Your task to perform on an android device: Clear the cart on ebay.com. Search for "dell xps" on ebay.com, select the first entry, add it to the cart, then select checkout. Image 0: 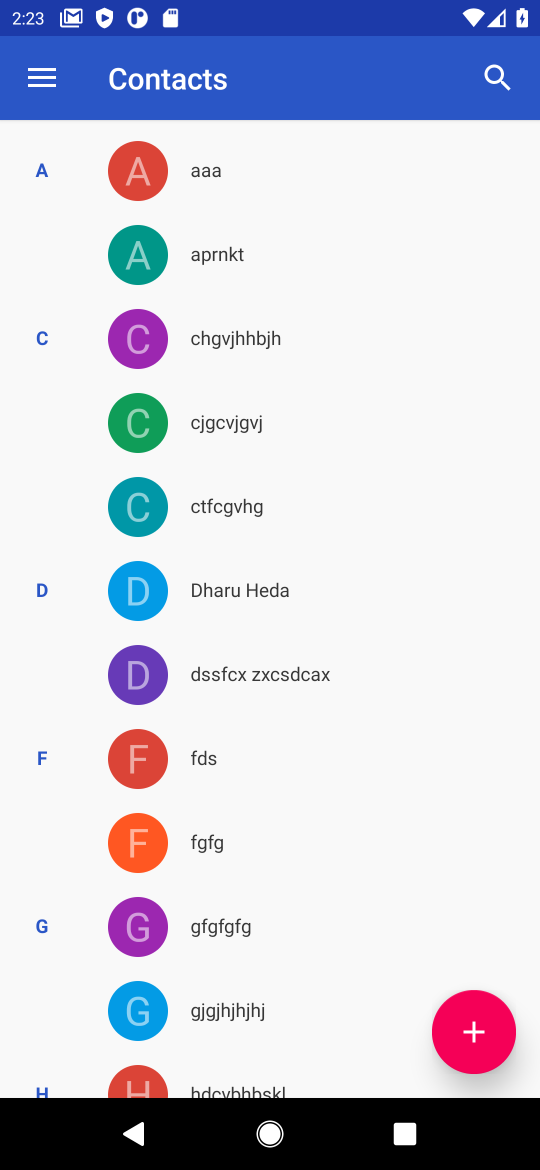
Step 0: press home button
Your task to perform on an android device: Clear the cart on ebay.com. Search for "dell xps" on ebay.com, select the first entry, add it to the cart, then select checkout. Image 1: 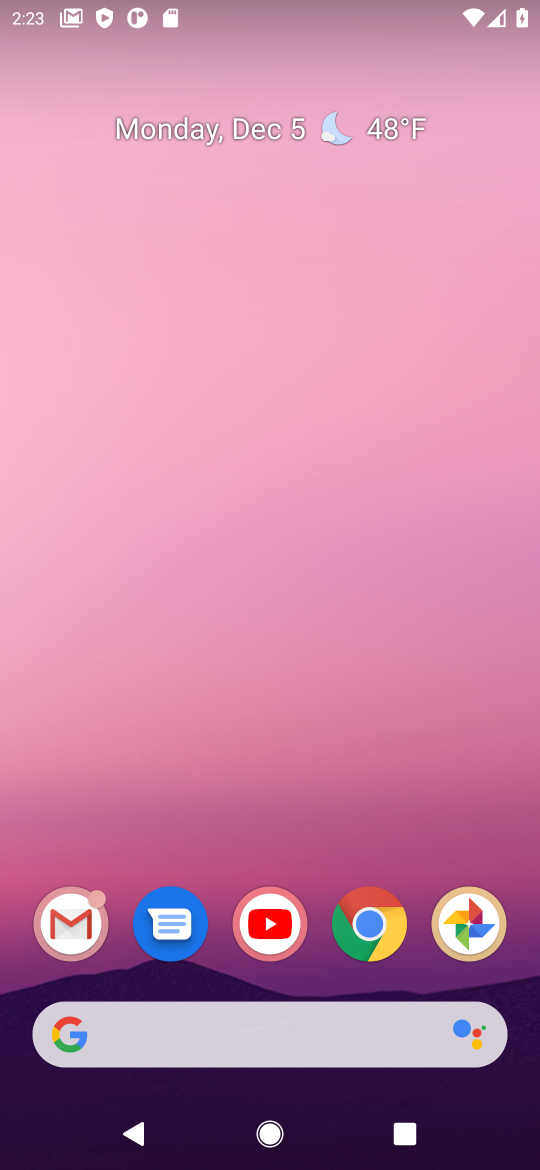
Step 1: click (236, 1021)
Your task to perform on an android device: Clear the cart on ebay.com. Search for "dell xps" on ebay.com, select the first entry, add it to the cart, then select checkout. Image 2: 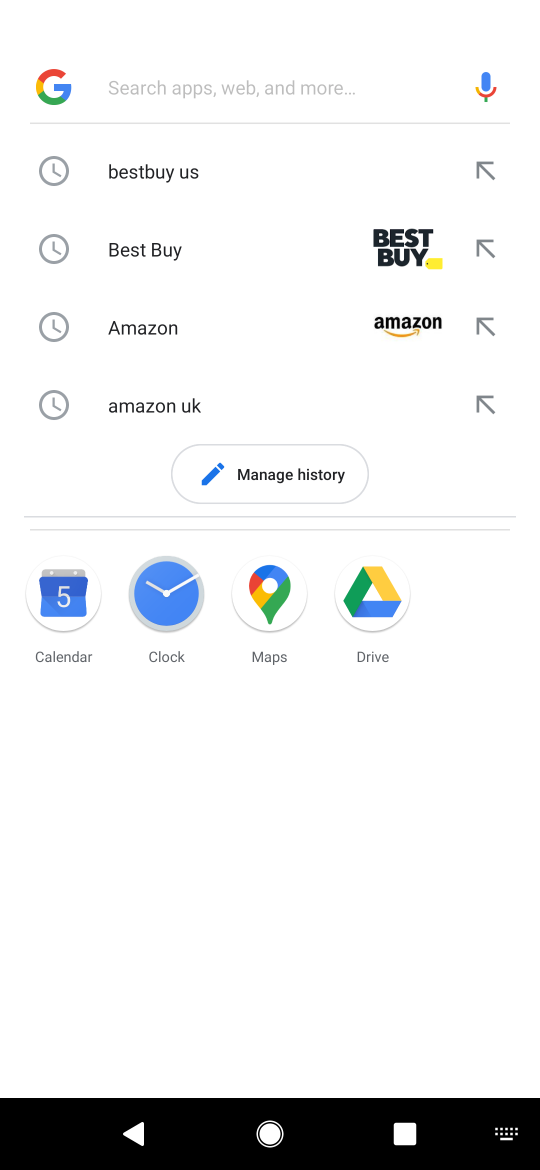
Step 2: type "ebay.com"
Your task to perform on an android device: Clear the cart on ebay.com. Search for "dell xps" on ebay.com, select the first entry, add it to the cart, then select checkout. Image 3: 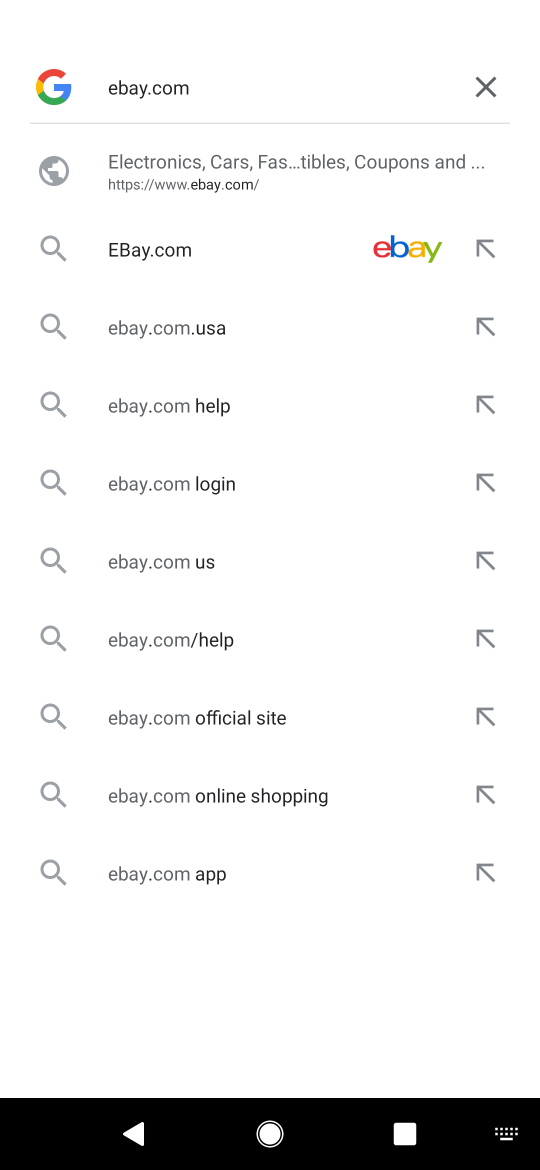
Step 3: click (194, 194)
Your task to perform on an android device: Clear the cart on ebay.com. Search for "dell xps" on ebay.com, select the first entry, add it to the cart, then select checkout. Image 4: 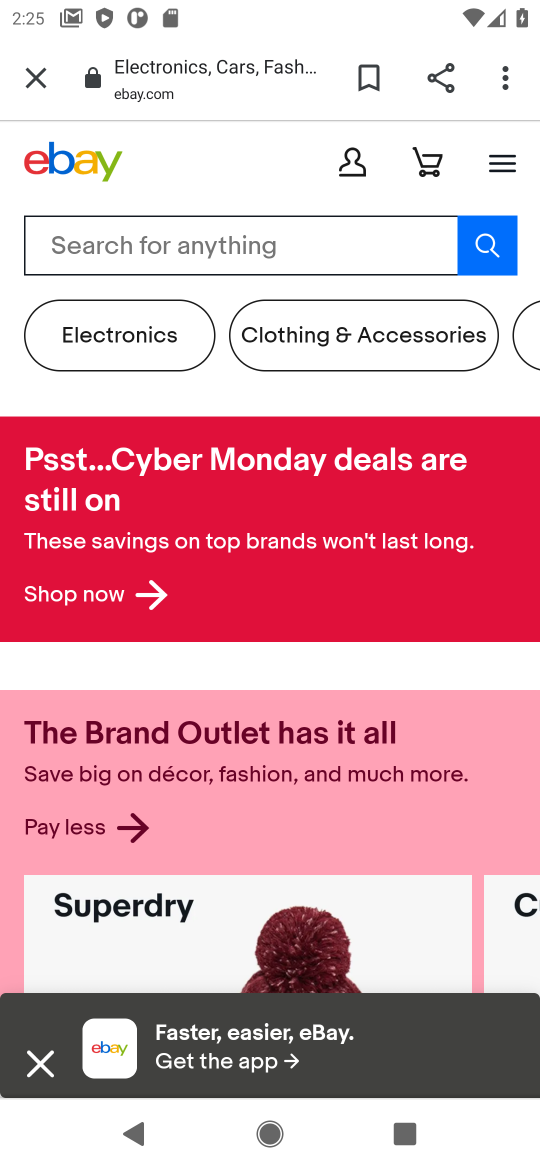
Step 4: task complete